Your task to perform on an android device: change text size in settings app Image 0: 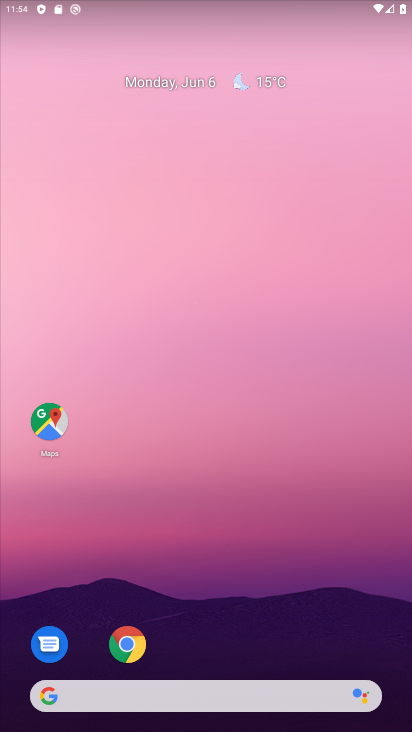
Step 0: drag from (274, 600) to (263, 129)
Your task to perform on an android device: change text size in settings app Image 1: 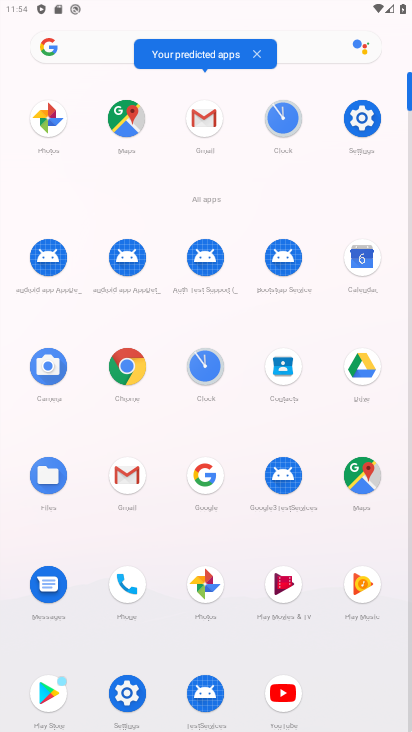
Step 1: click (366, 122)
Your task to perform on an android device: change text size in settings app Image 2: 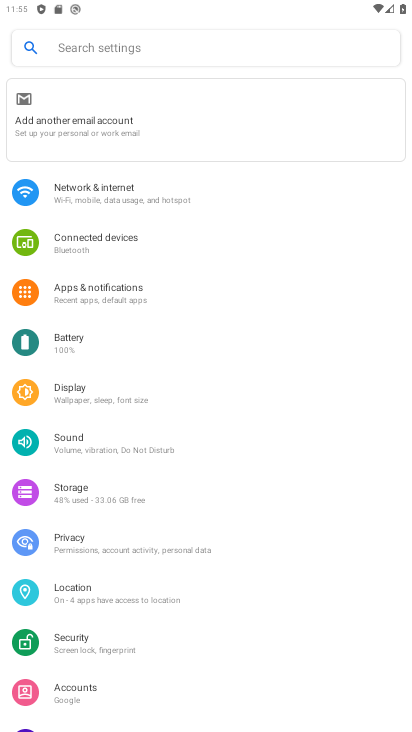
Step 2: drag from (120, 683) to (192, 398)
Your task to perform on an android device: change text size in settings app Image 3: 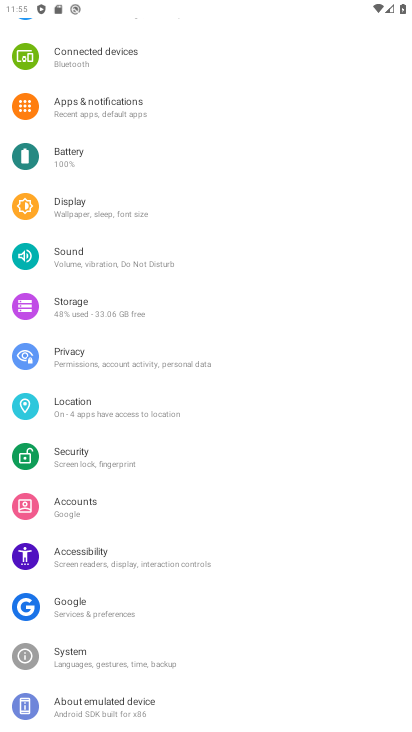
Step 3: click (75, 212)
Your task to perform on an android device: change text size in settings app Image 4: 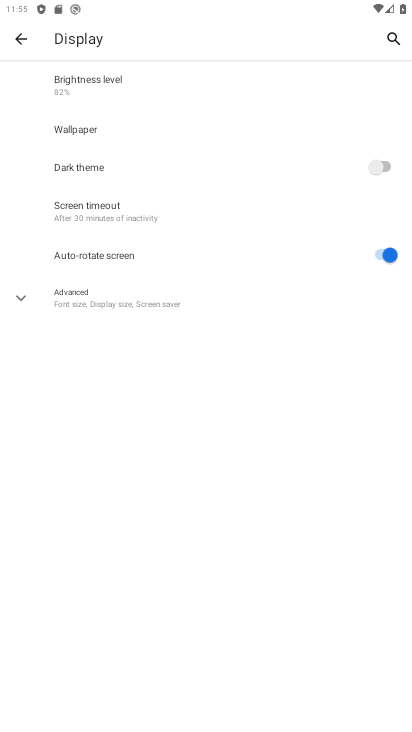
Step 4: click (74, 301)
Your task to perform on an android device: change text size in settings app Image 5: 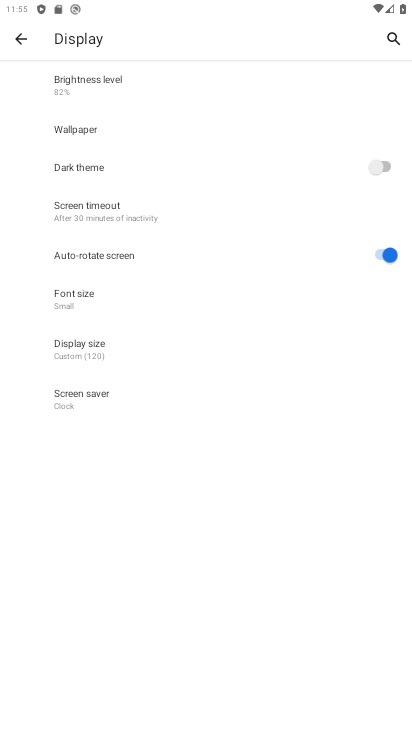
Step 5: click (87, 302)
Your task to perform on an android device: change text size in settings app Image 6: 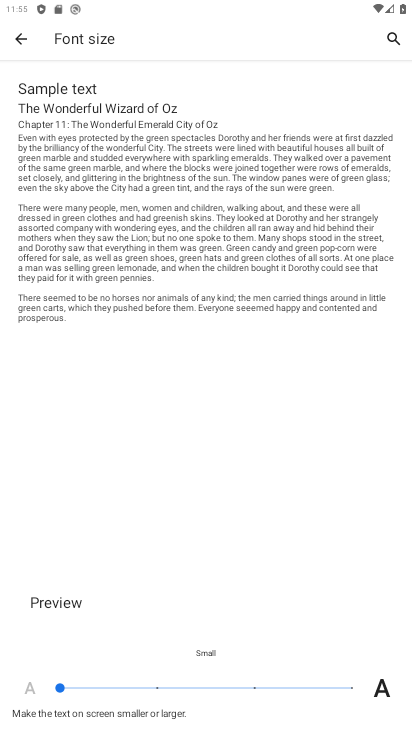
Step 6: click (119, 688)
Your task to perform on an android device: change text size in settings app Image 7: 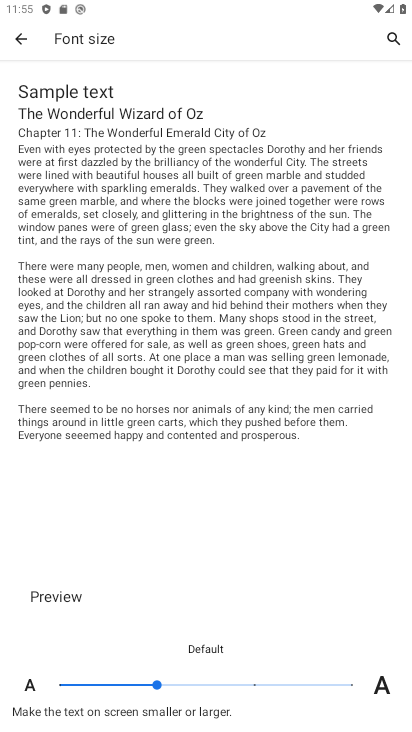
Step 7: task complete